Your task to perform on an android device: choose inbox layout in the gmail app Image 0: 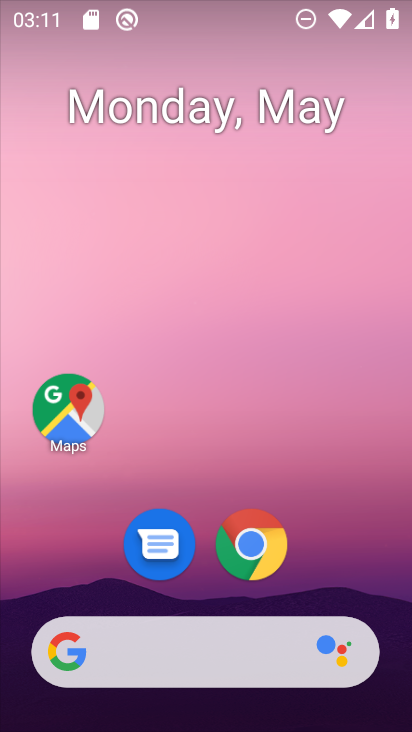
Step 0: drag from (354, 577) to (367, 186)
Your task to perform on an android device: choose inbox layout in the gmail app Image 1: 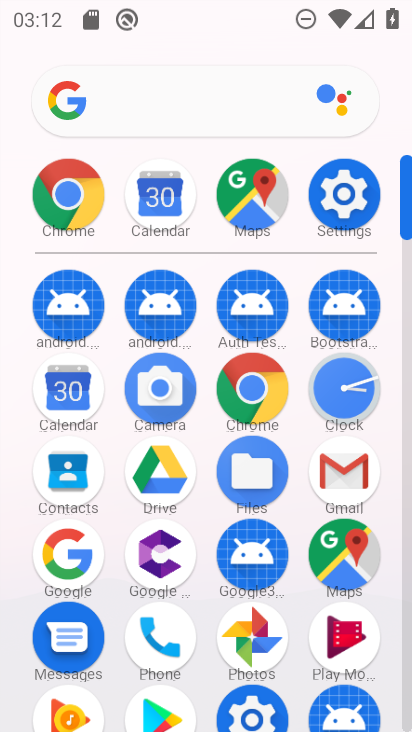
Step 1: click (358, 471)
Your task to perform on an android device: choose inbox layout in the gmail app Image 2: 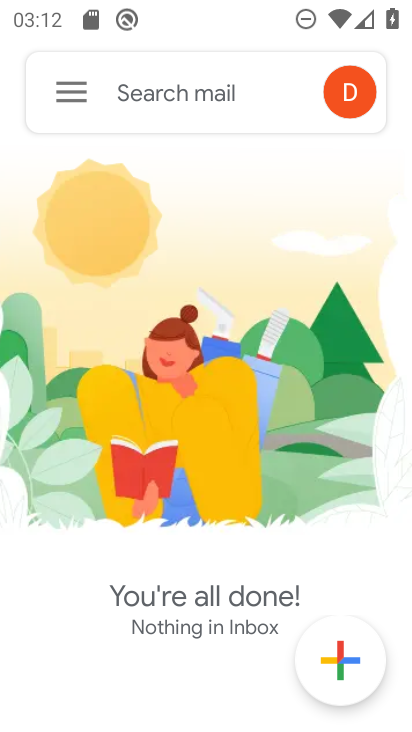
Step 2: click (76, 108)
Your task to perform on an android device: choose inbox layout in the gmail app Image 3: 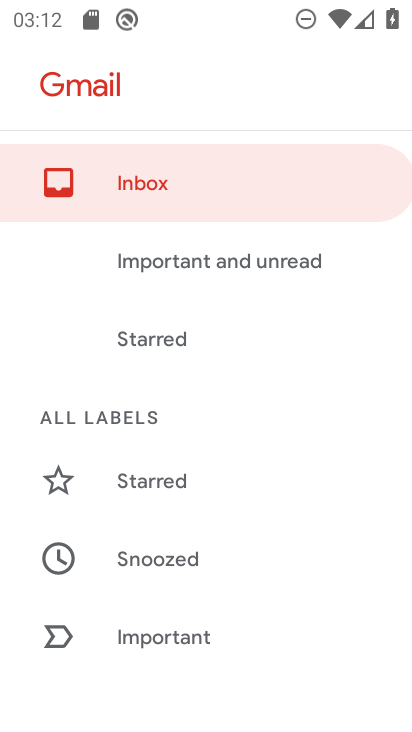
Step 3: drag from (325, 563) to (330, 488)
Your task to perform on an android device: choose inbox layout in the gmail app Image 4: 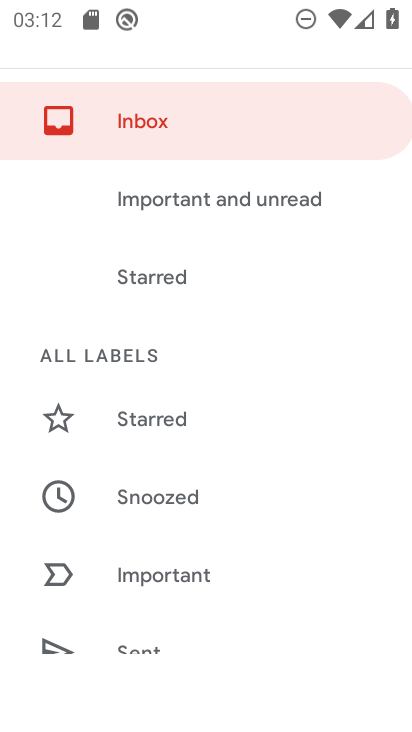
Step 4: drag from (324, 607) to (318, 352)
Your task to perform on an android device: choose inbox layout in the gmail app Image 5: 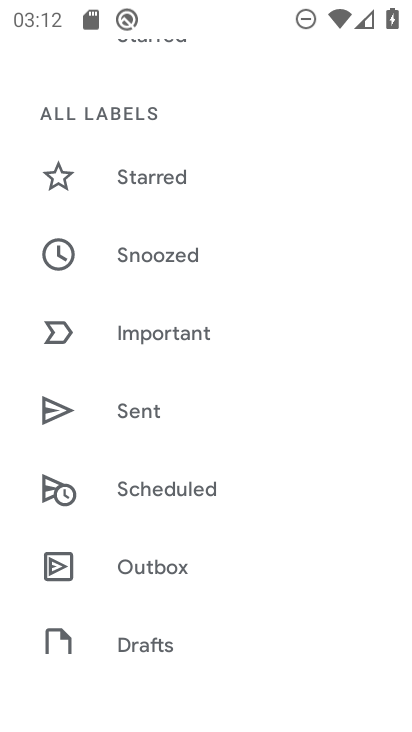
Step 5: drag from (334, 540) to (326, 351)
Your task to perform on an android device: choose inbox layout in the gmail app Image 6: 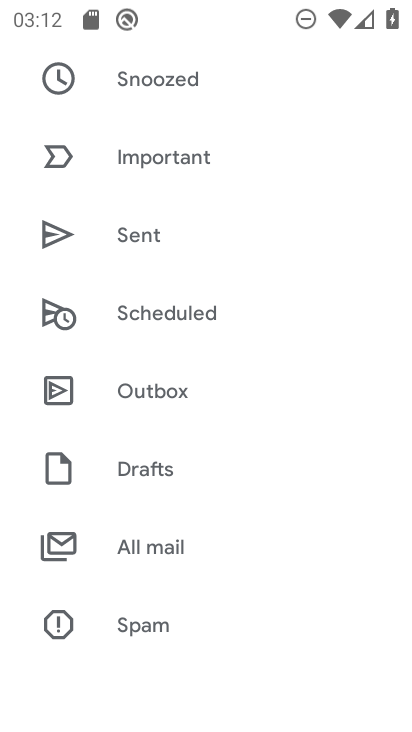
Step 6: drag from (315, 528) to (310, 385)
Your task to perform on an android device: choose inbox layout in the gmail app Image 7: 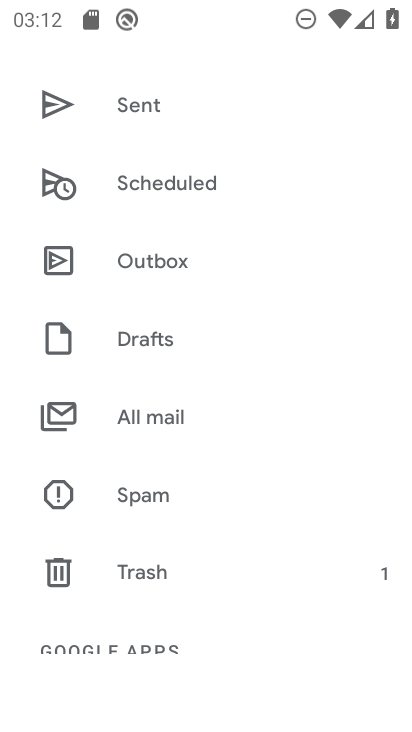
Step 7: drag from (294, 541) to (300, 306)
Your task to perform on an android device: choose inbox layout in the gmail app Image 8: 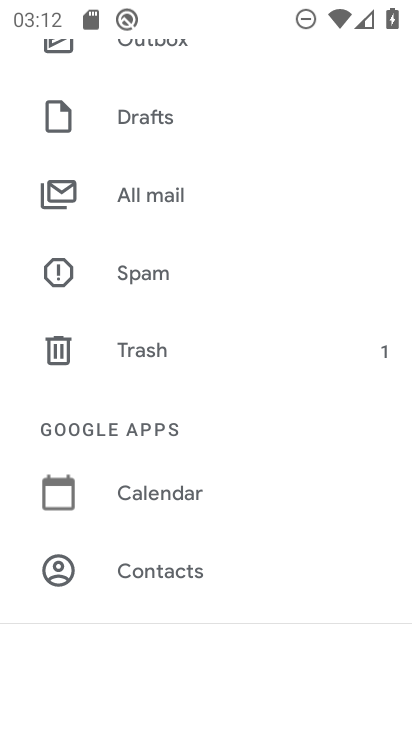
Step 8: drag from (294, 525) to (290, 380)
Your task to perform on an android device: choose inbox layout in the gmail app Image 9: 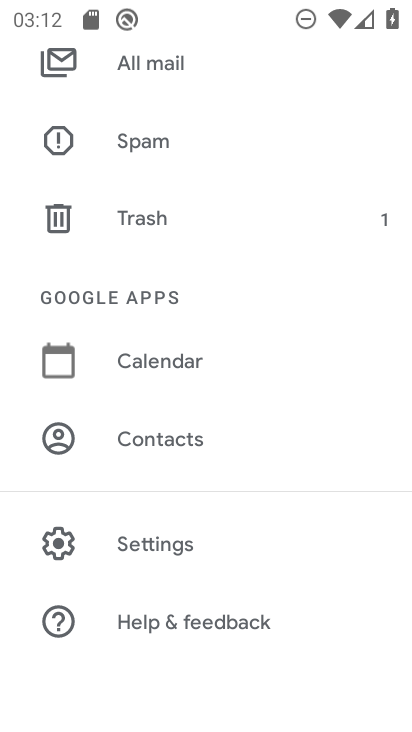
Step 9: click (287, 551)
Your task to perform on an android device: choose inbox layout in the gmail app Image 10: 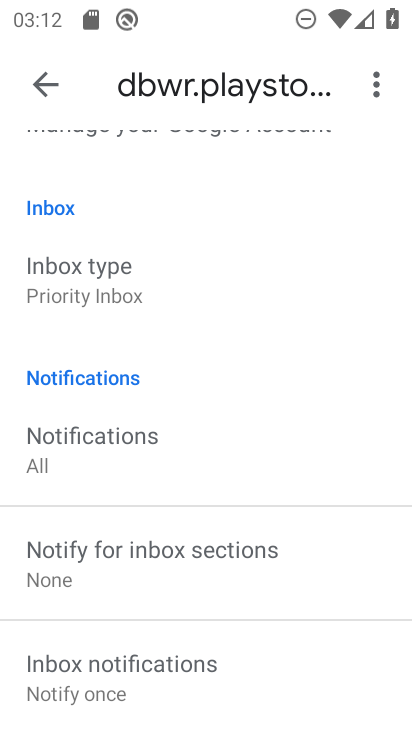
Step 10: drag from (291, 263) to (296, 433)
Your task to perform on an android device: choose inbox layout in the gmail app Image 11: 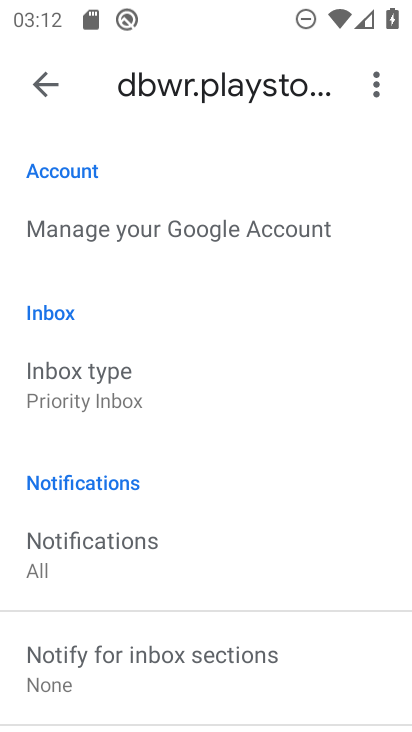
Step 11: drag from (299, 325) to (299, 520)
Your task to perform on an android device: choose inbox layout in the gmail app Image 12: 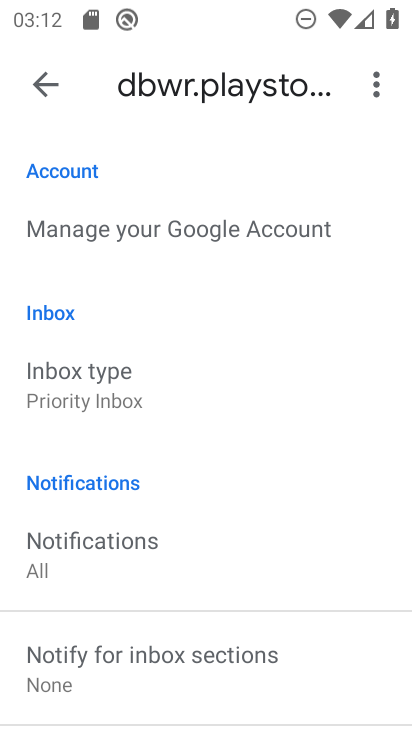
Step 12: drag from (297, 550) to (297, 453)
Your task to perform on an android device: choose inbox layout in the gmail app Image 13: 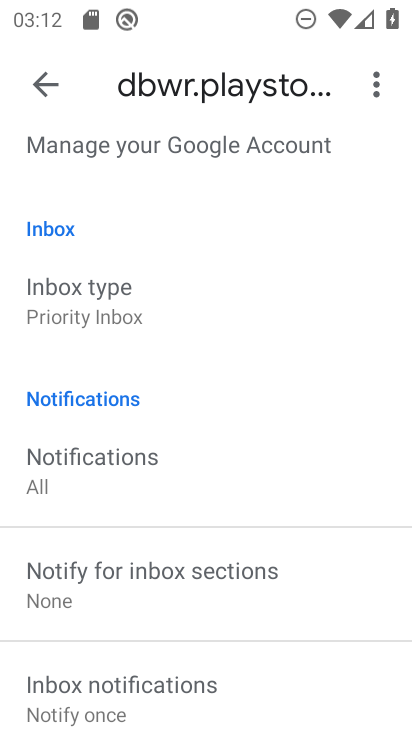
Step 13: click (99, 291)
Your task to perform on an android device: choose inbox layout in the gmail app Image 14: 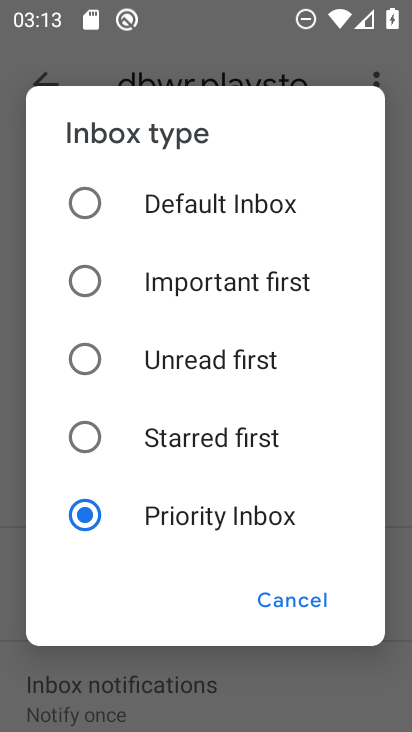
Step 14: click (95, 209)
Your task to perform on an android device: choose inbox layout in the gmail app Image 15: 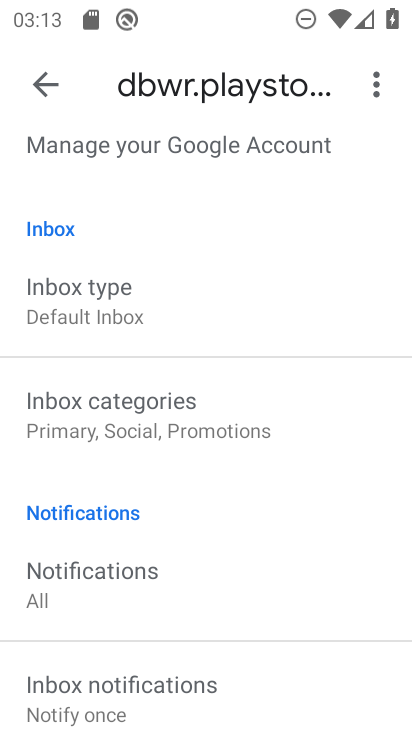
Step 15: task complete